Your task to perform on an android device: turn off improve location accuracy Image 0: 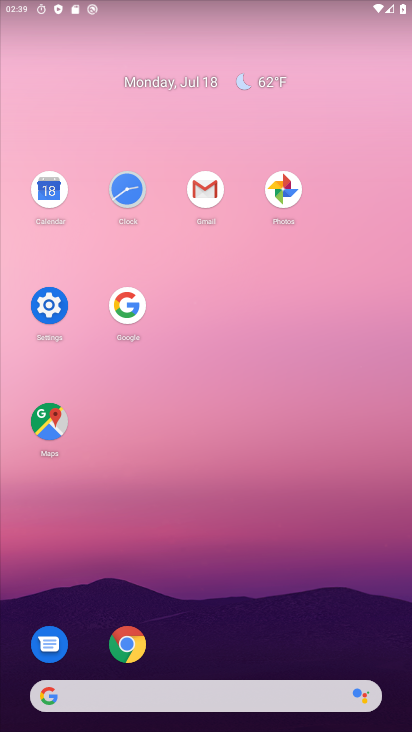
Step 0: click (42, 319)
Your task to perform on an android device: turn off improve location accuracy Image 1: 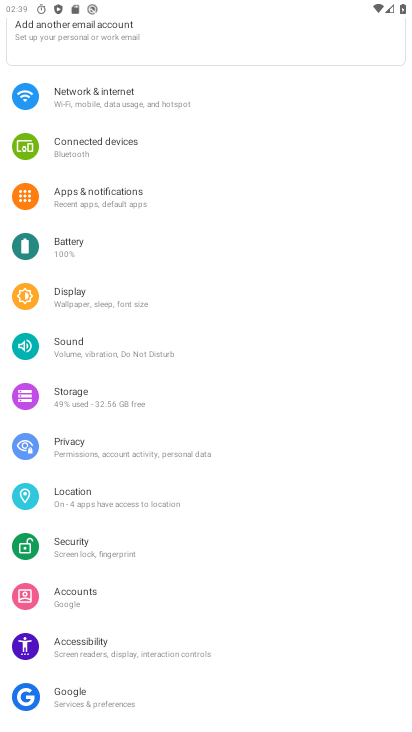
Step 1: click (158, 496)
Your task to perform on an android device: turn off improve location accuracy Image 2: 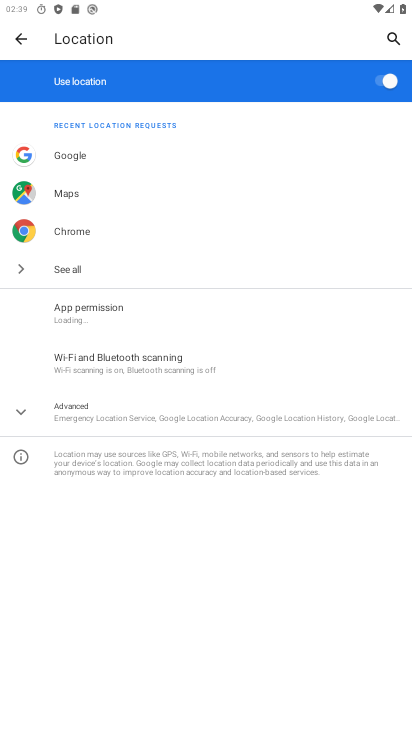
Step 2: click (102, 410)
Your task to perform on an android device: turn off improve location accuracy Image 3: 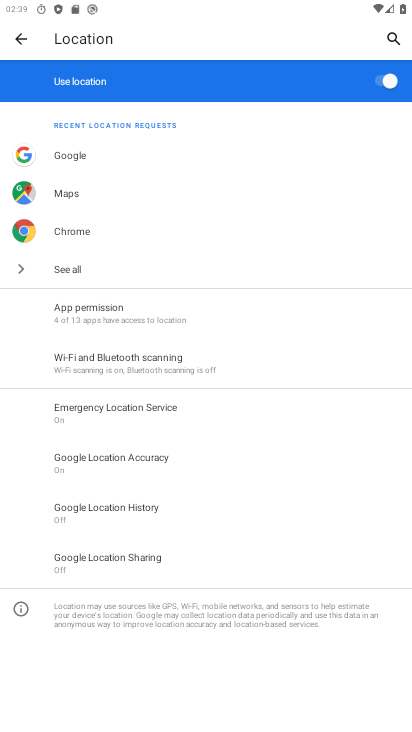
Step 3: click (109, 457)
Your task to perform on an android device: turn off improve location accuracy Image 4: 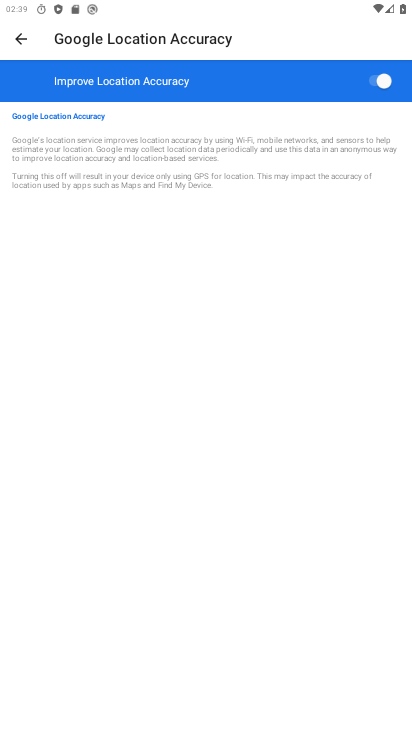
Step 4: task complete